Your task to perform on an android device: Play the last video I watched on Youtube Image 0: 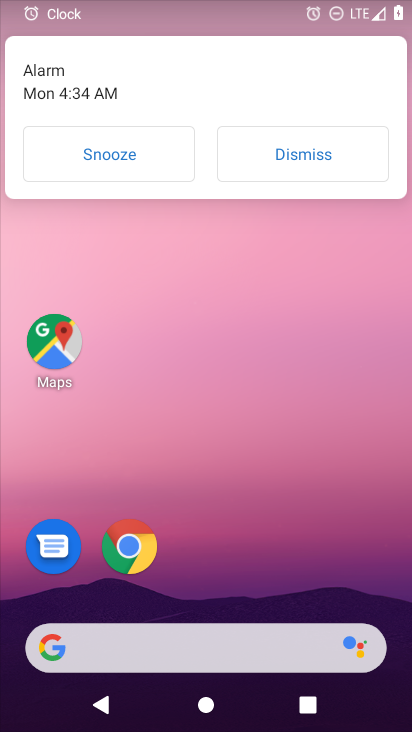
Step 0: drag from (337, 582) to (340, 114)
Your task to perform on an android device: Play the last video I watched on Youtube Image 1: 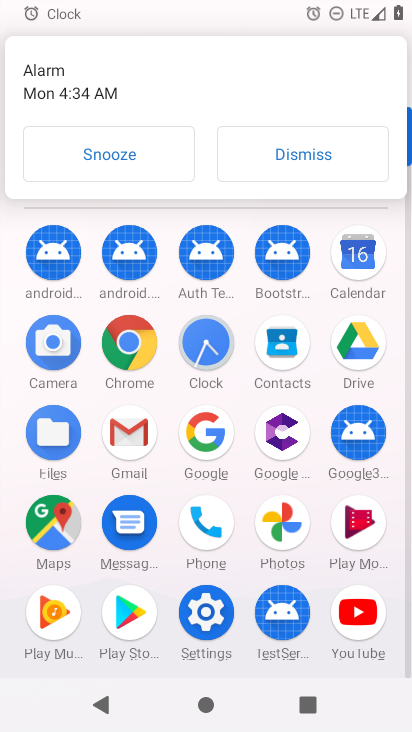
Step 1: click (374, 624)
Your task to perform on an android device: Play the last video I watched on Youtube Image 2: 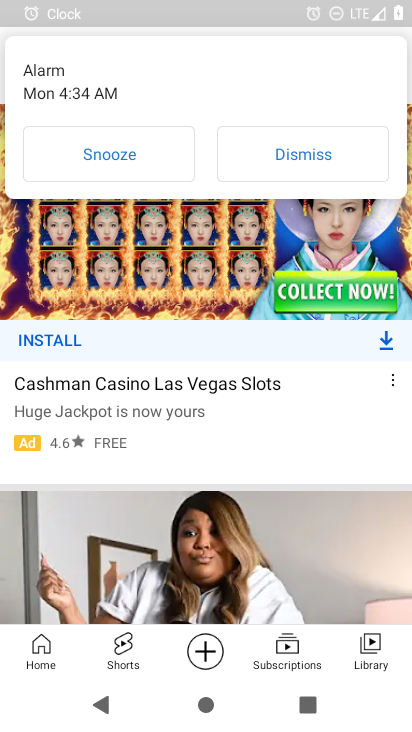
Step 2: click (365, 646)
Your task to perform on an android device: Play the last video I watched on Youtube Image 3: 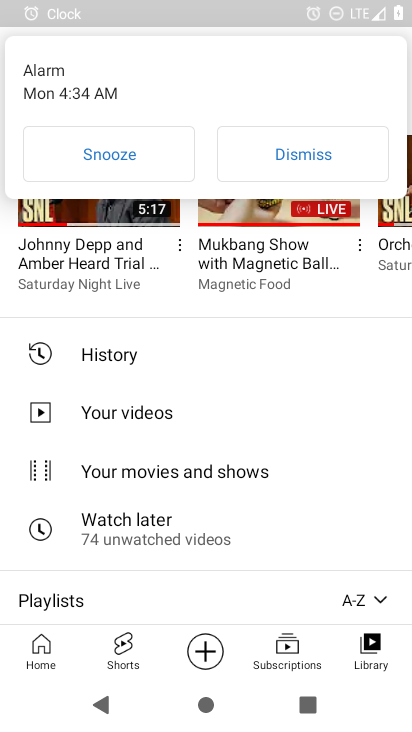
Step 3: click (292, 163)
Your task to perform on an android device: Play the last video I watched on Youtube Image 4: 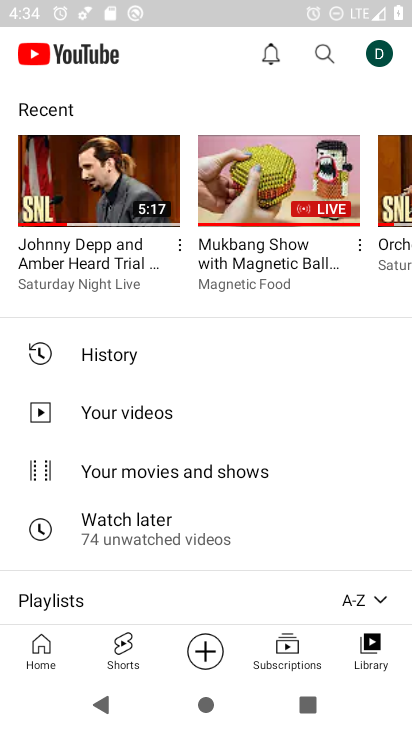
Step 4: click (107, 203)
Your task to perform on an android device: Play the last video I watched on Youtube Image 5: 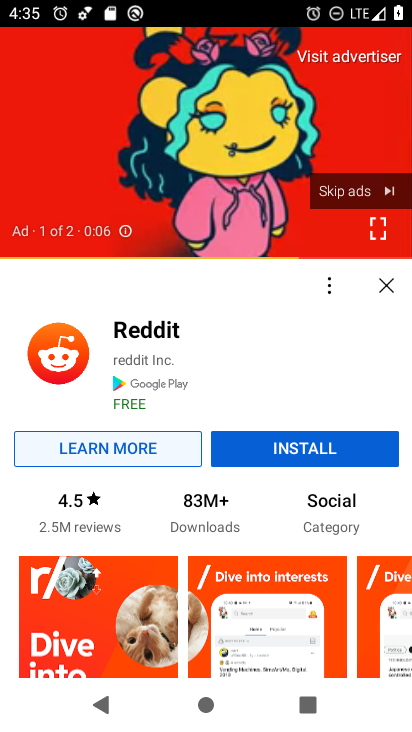
Step 5: task complete